Your task to perform on an android device: Open calendar and show me the fourth week of next month Image 0: 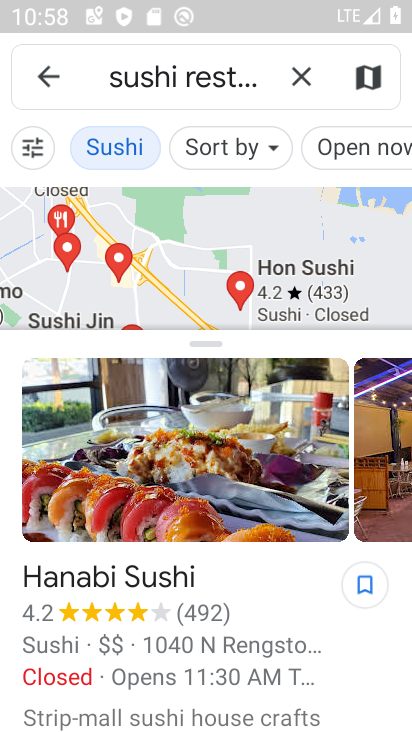
Step 0: task complete